Your task to perform on an android device: add a label to a message in the gmail app Image 0: 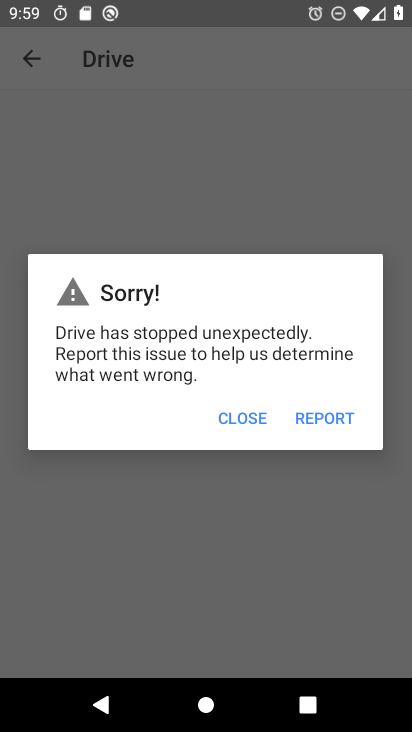
Step 0: press home button
Your task to perform on an android device: add a label to a message in the gmail app Image 1: 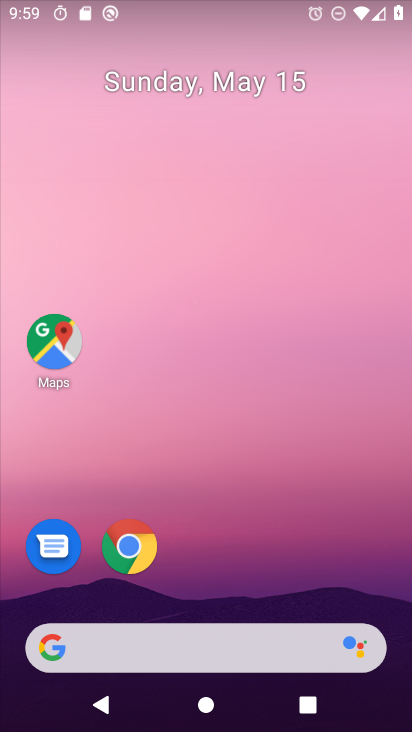
Step 1: drag from (311, 536) to (225, 44)
Your task to perform on an android device: add a label to a message in the gmail app Image 2: 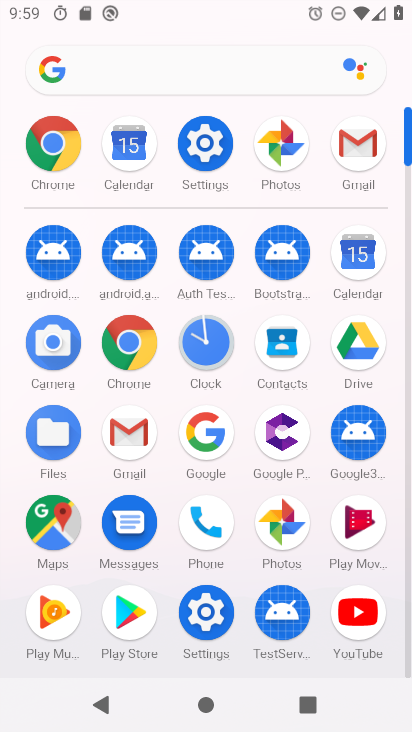
Step 2: click (358, 149)
Your task to perform on an android device: add a label to a message in the gmail app Image 3: 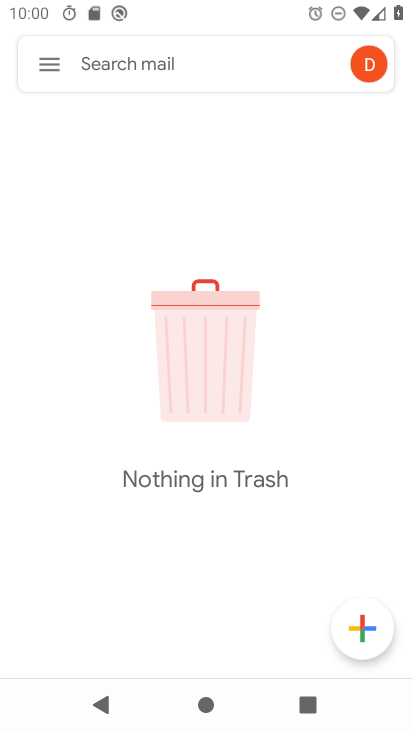
Step 3: click (48, 57)
Your task to perform on an android device: add a label to a message in the gmail app Image 4: 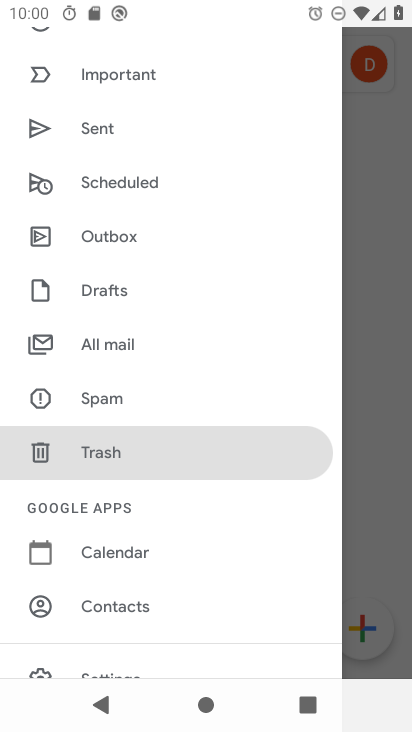
Step 4: click (146, 342)
Your task to perform on an android device: add a label to a message in the gmail app Image 5: 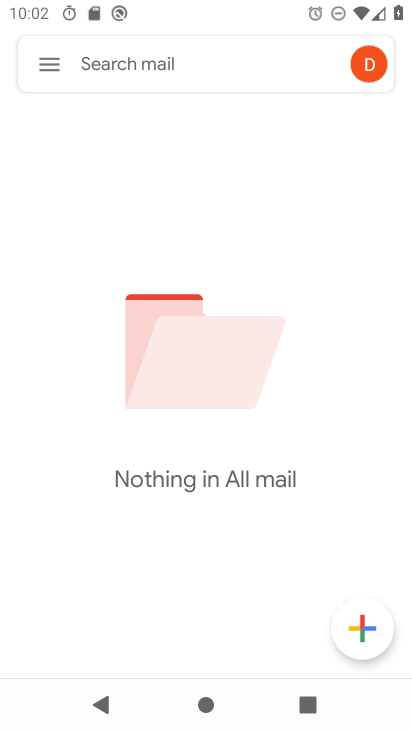
Step 5: task complete